Your task to perform on an android device: open app "Google Drive" (install if not already installed) Image 0: 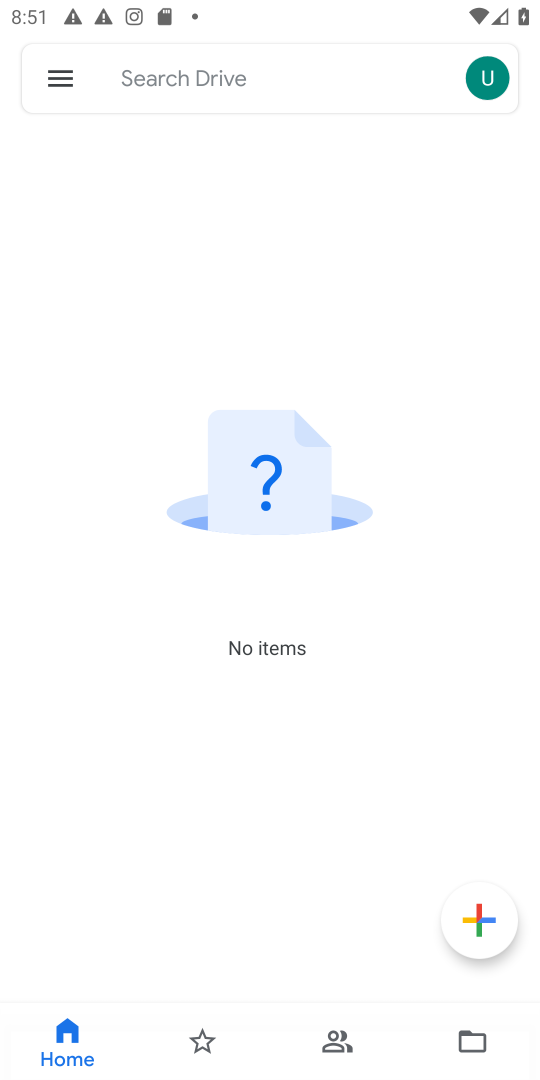
Step 0: press home button
Your task to perform on an android device: open app "Google Drive" (install if not already installed) Image 1: 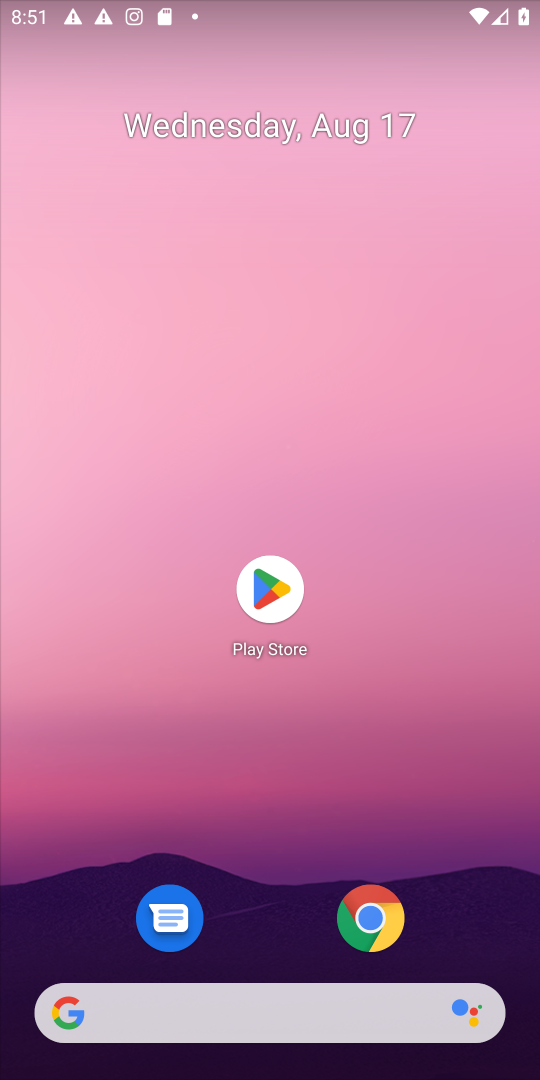
Step 1: click (250, 593)
Your task to perform on an android device: open app "Google Drive" (install if not already installed) Image 2: 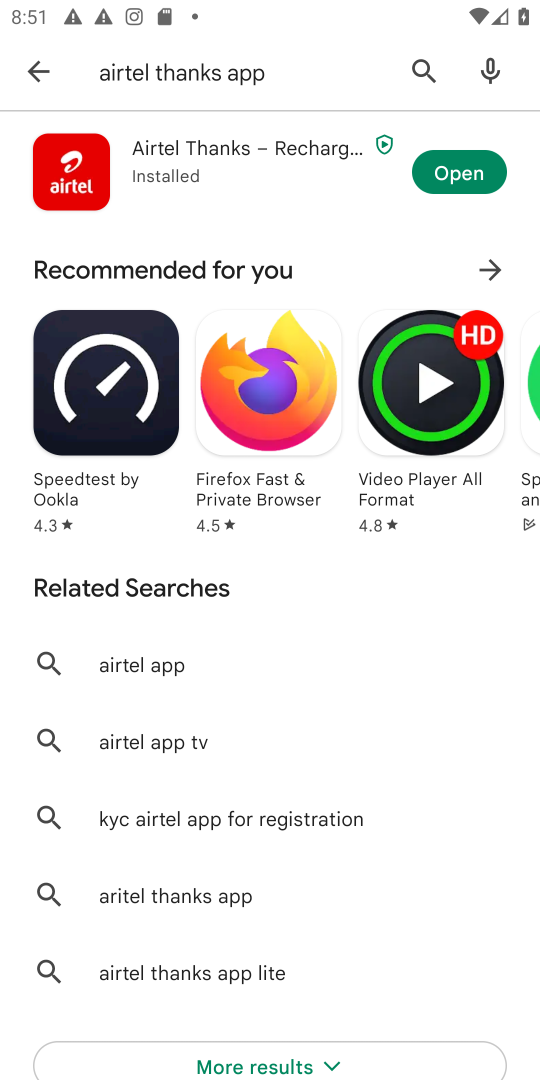
Step 2: click (417, 61)
Your task to perform on an android device: open app "Google Drive" (install if not already installed) Image 3: 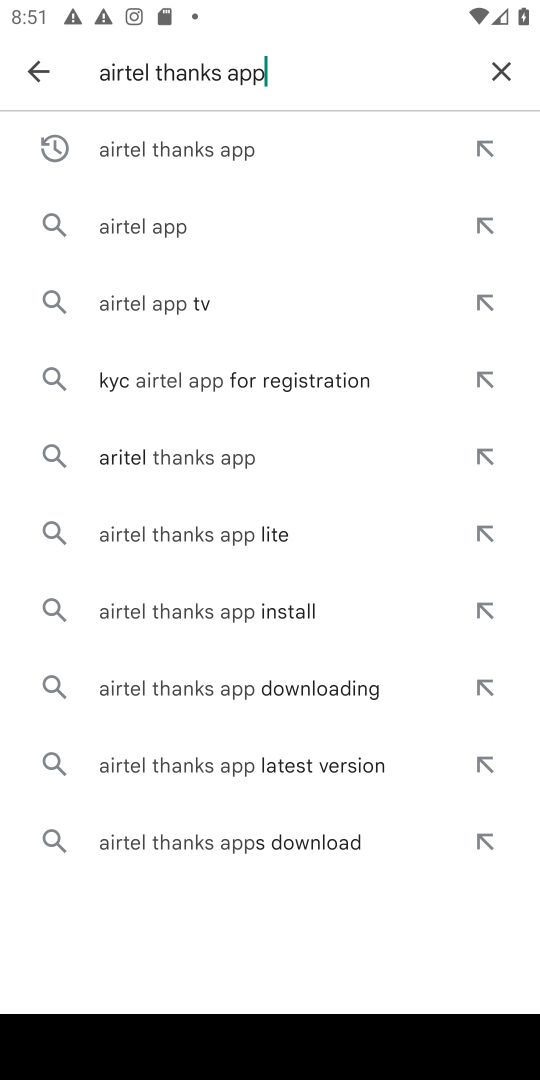
Step 3: click (506, 70)
Your task to perform on an android device: open app "Google Drive" (install if not already installed) Image 4: 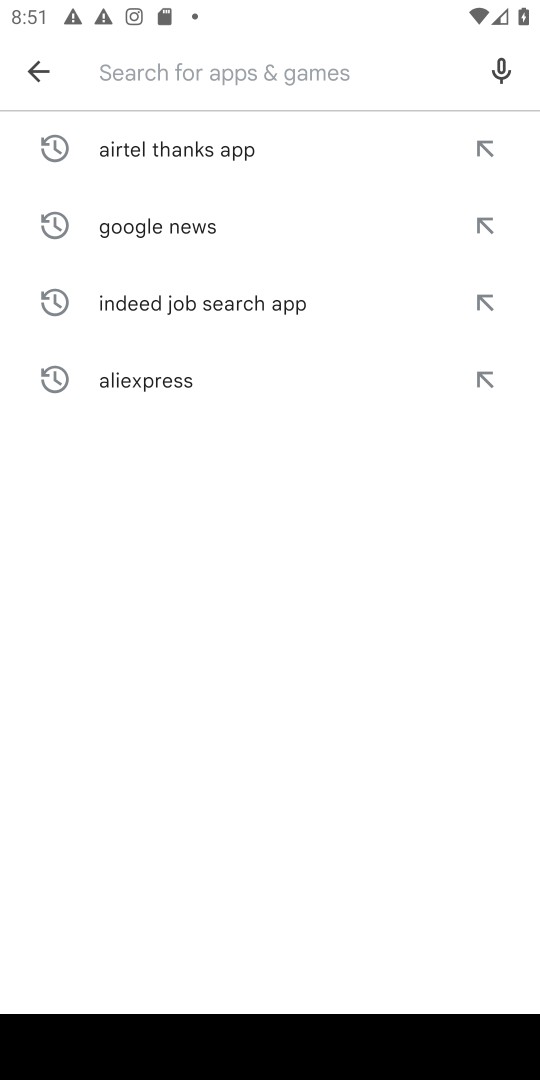
Step 4: type "Google Drive"
Your task to perform on an android device: open app "Google Drive" (install if not already installed) Image 5: 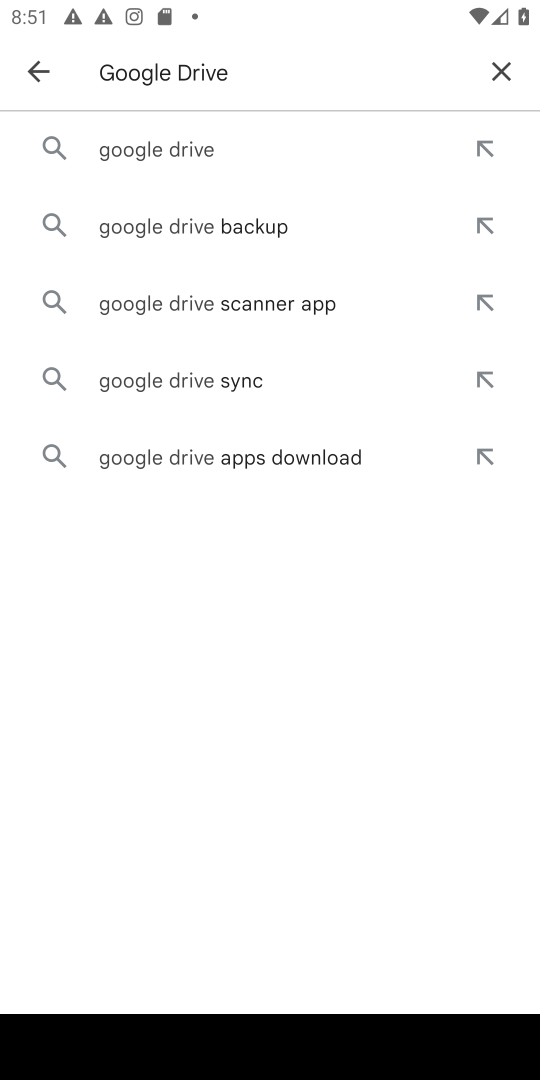
Step 5: click (175, 145)
Your task to perform on an android device: open app "Google Drive" (install if not already installed) Image 6: 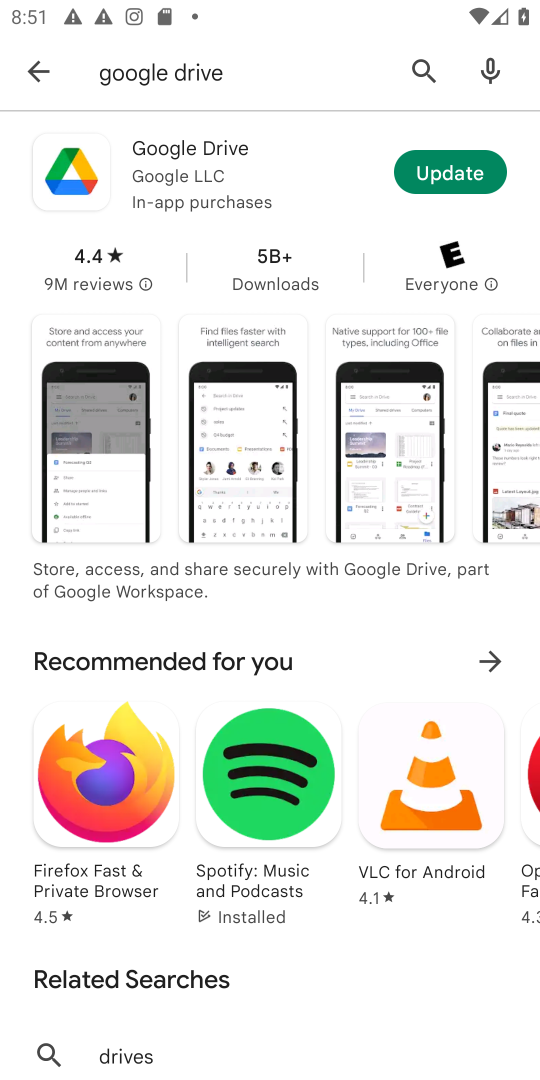
Step 6: click (167, 174)
Your task to perform on an android device: open app "Google Drive" (install if not already installed) Image 7: 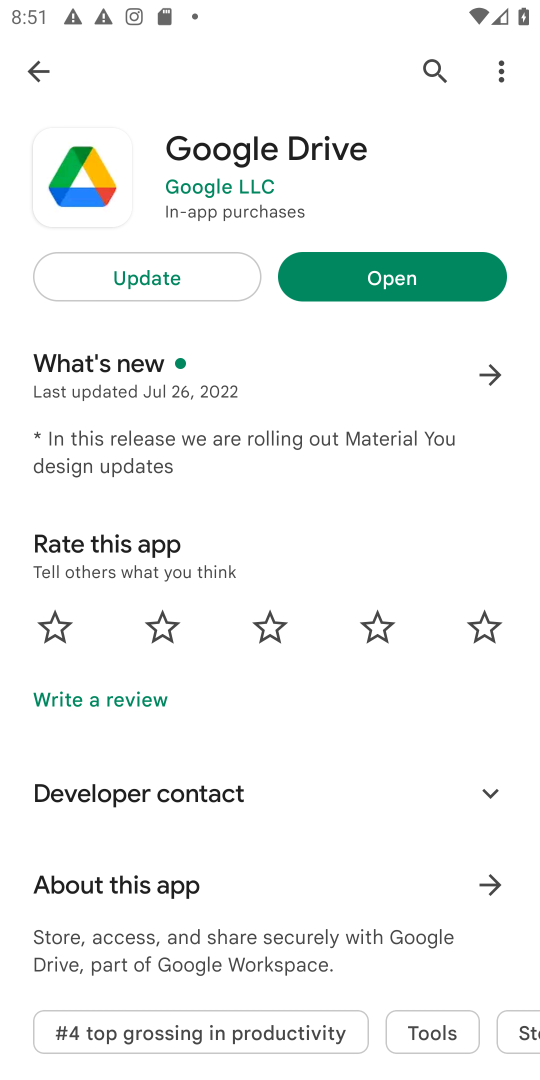
Step 7: task complete